Your task to perform on an android device: all mails in gmail Image 0: 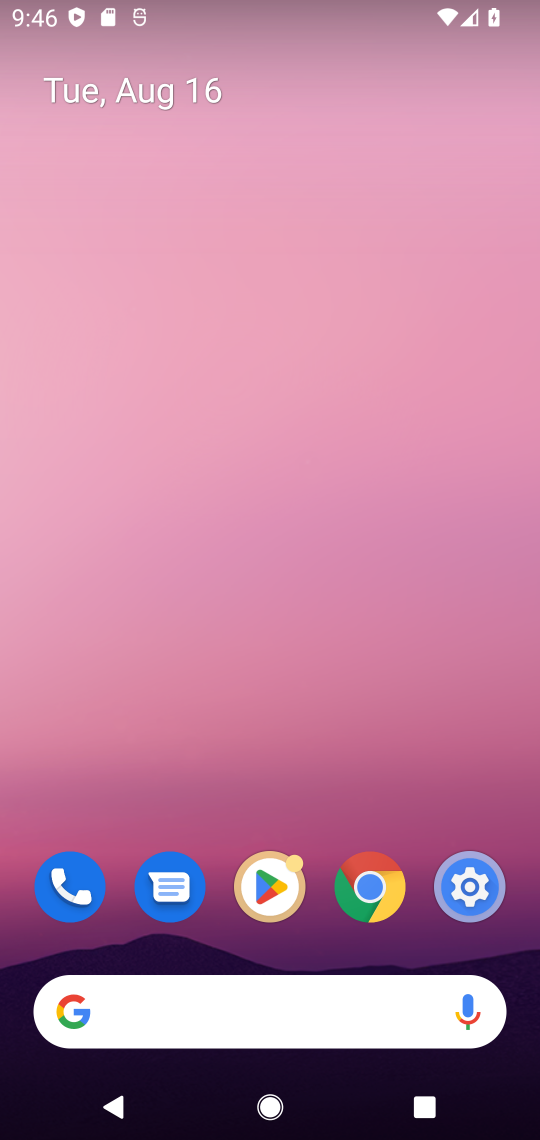
Step 0: drag from (408, 730) to (411, 144)
Your task to perform on an android device: all mails in gmail Image 1: 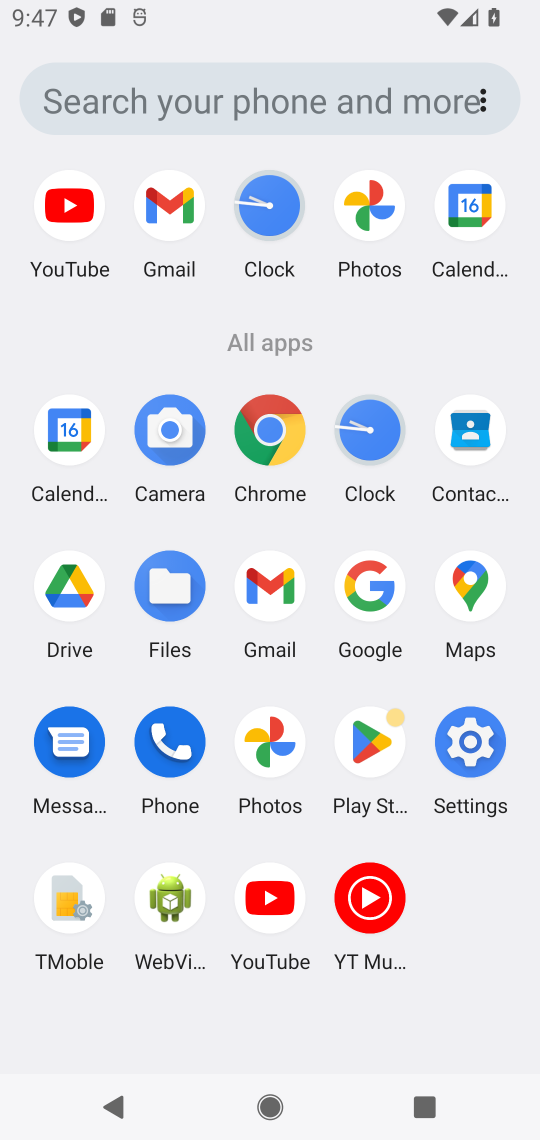
Step 1: click (271, 583)
Your task to perform on an android device: all mails in gmail Image 2: 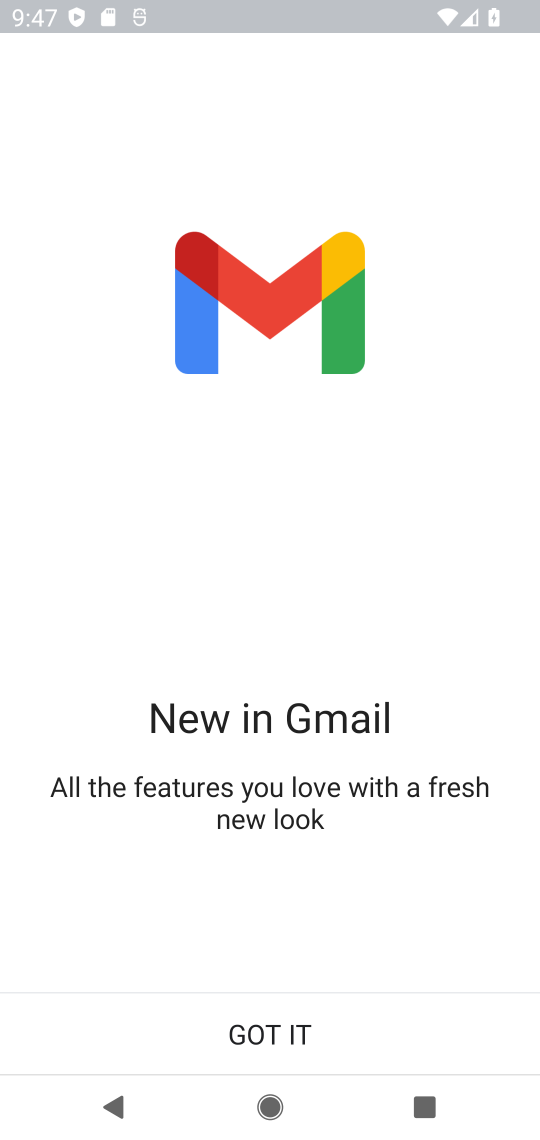
Step 2: click (245, 1027)
Your task to perform on an android device: all mails in gmail Image 3: 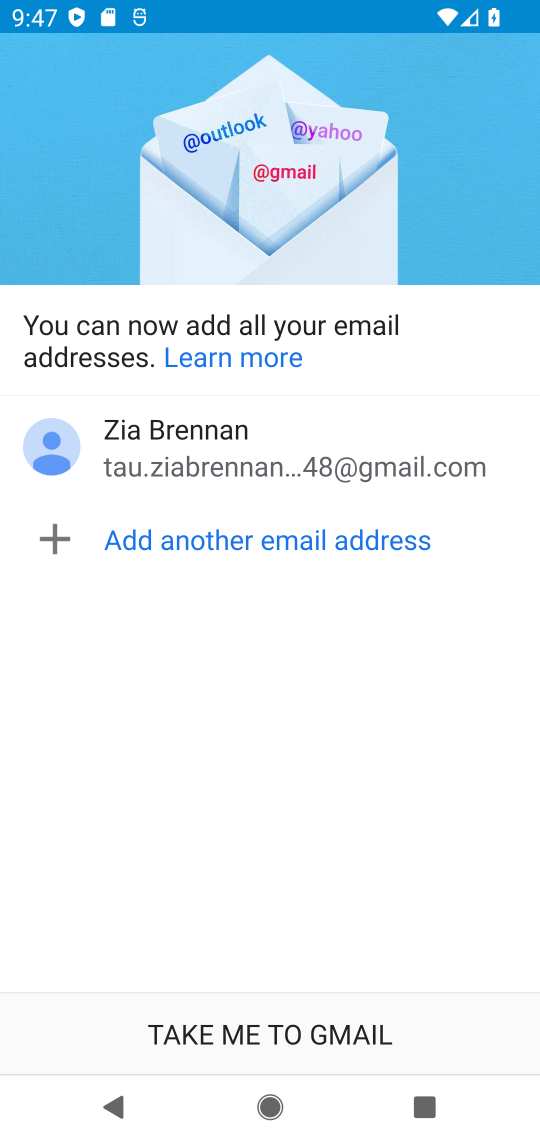
Step 3: click (285, 1016)
Your task to perform on an android device: all mails in gmail Image 4: 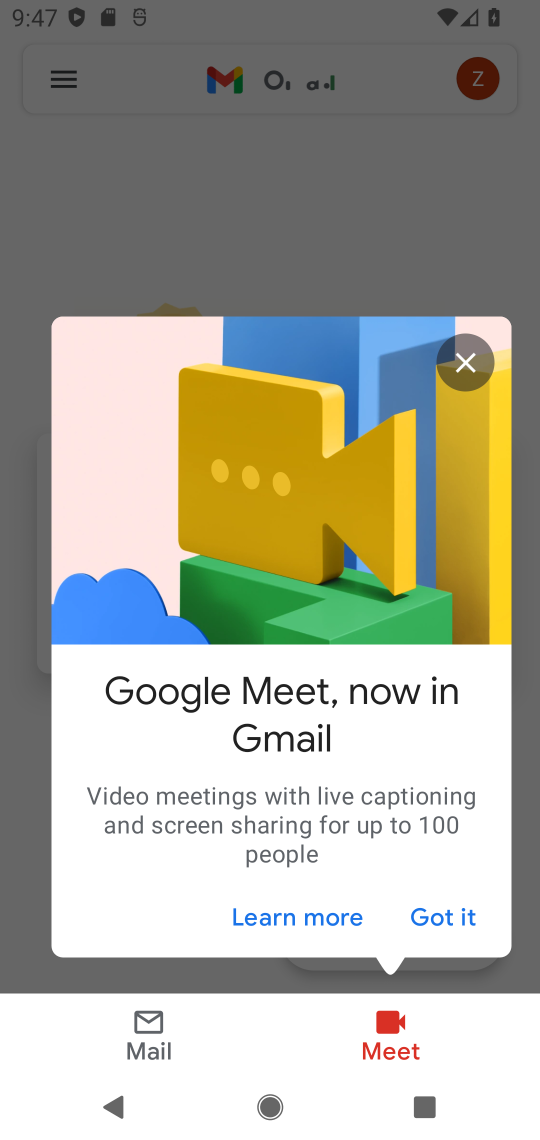
Step 4: click (437, 913)
Your task to perform on an android device: all mails in gmail Image 5: 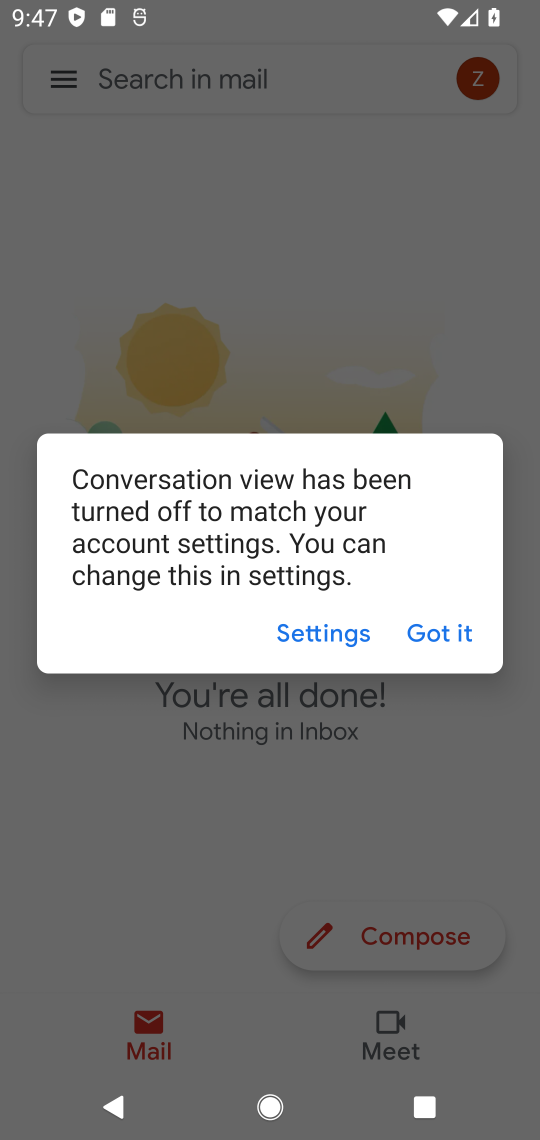
Step 5: click (426, 623)
Your task to perform on an android device: all mails in gmail Image 6: 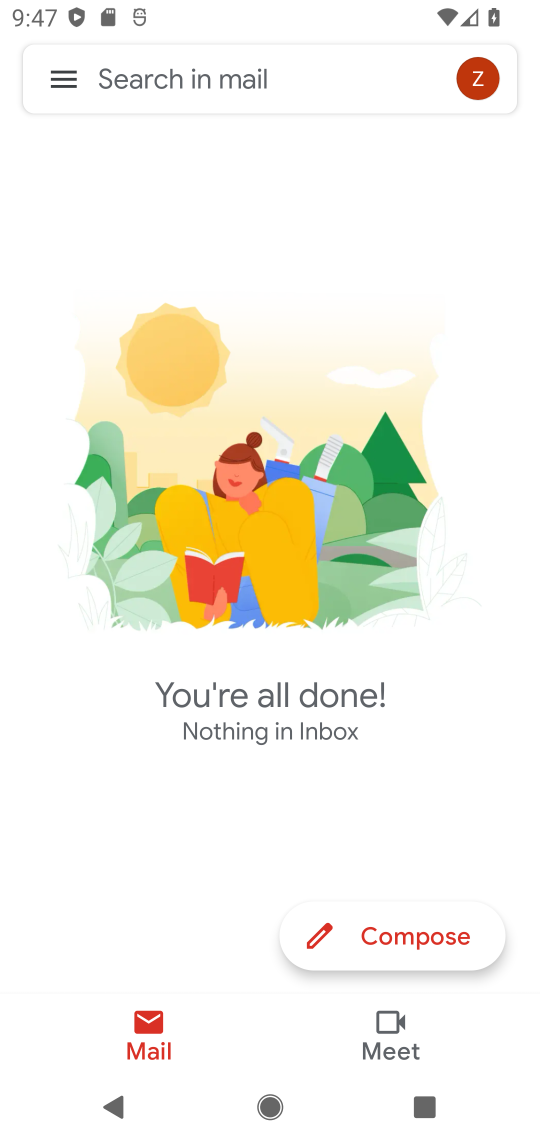
Step 6: click (56, 73)
Your task to perform on an android device: all mails in gmail Image 7: 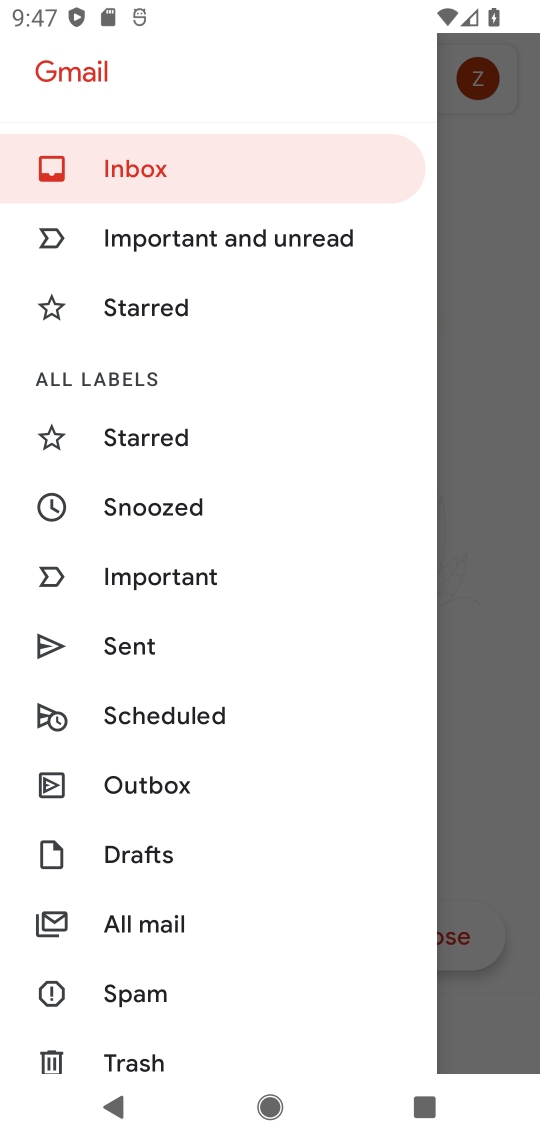
Step 7: click (171, 928)
Your task to perform on an android device: all mails in gmail Image 8: 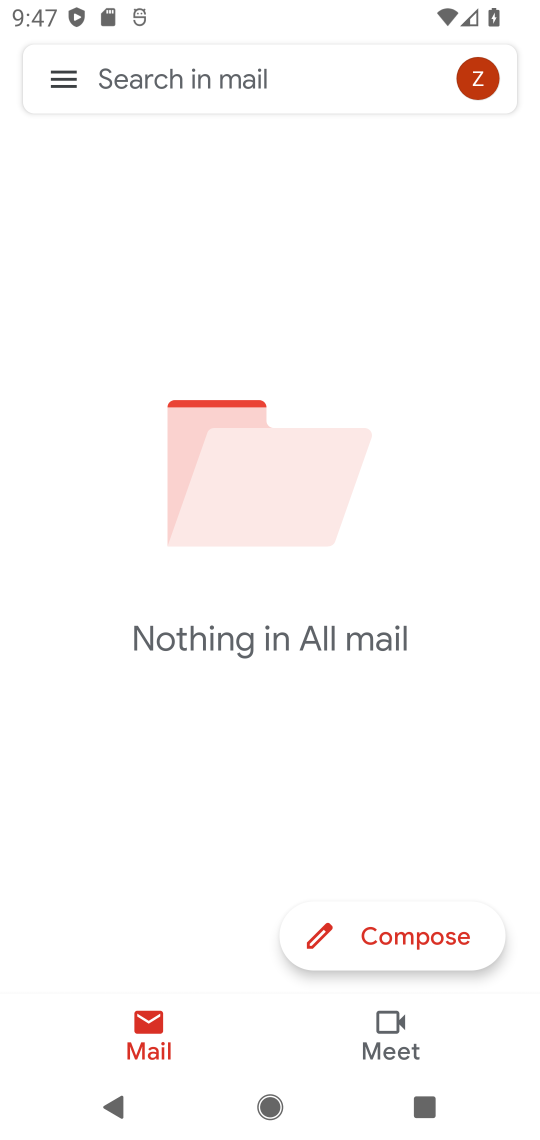
Step 8: task complete